Your task to perform on an android device: Clear the cart on ebay.com. Add bose quietcomfort 35 to the cart on ebay.com Image 0: 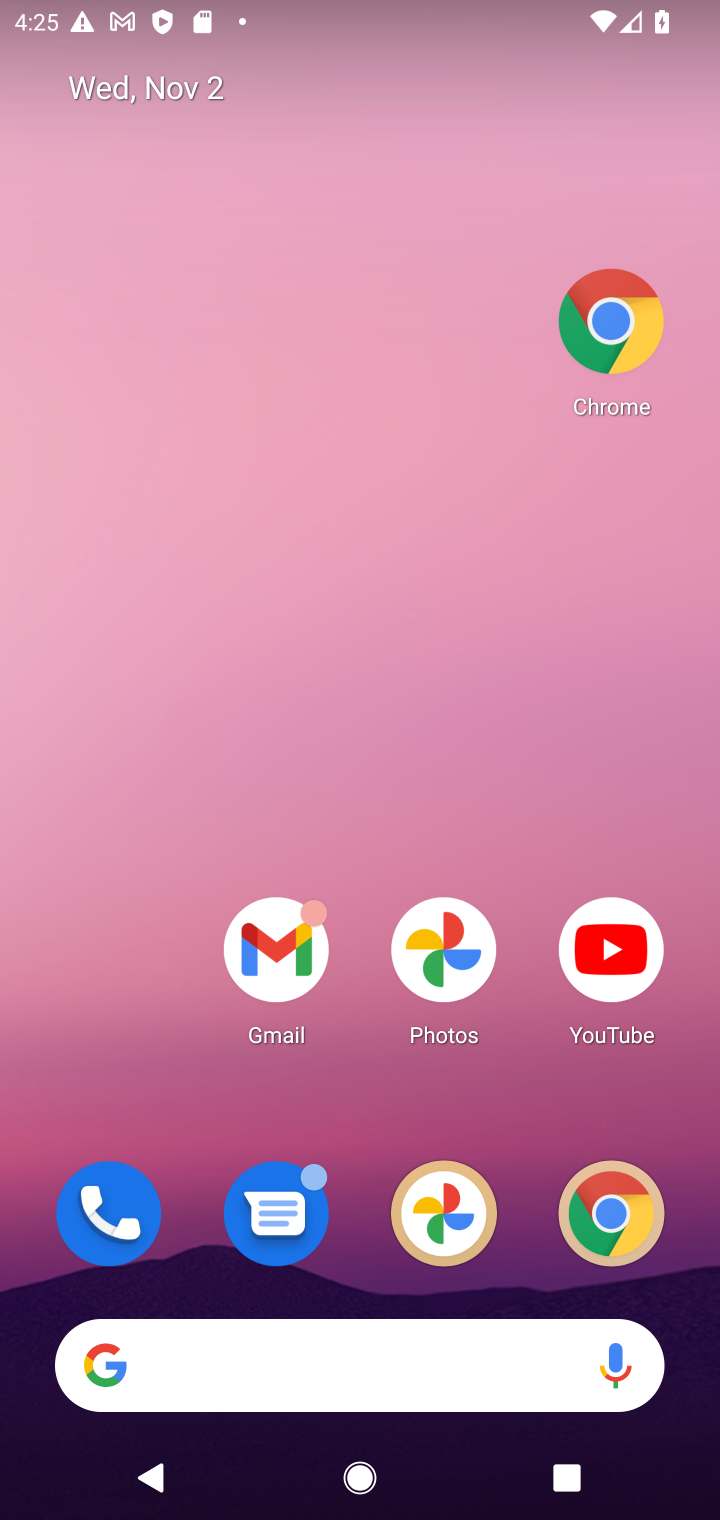
Step 0: press home button
Your task to perform on an android device: Clear the cart on ebay.com. Add bose quietcomfort 35 to the cart on ebay.com Image 1: 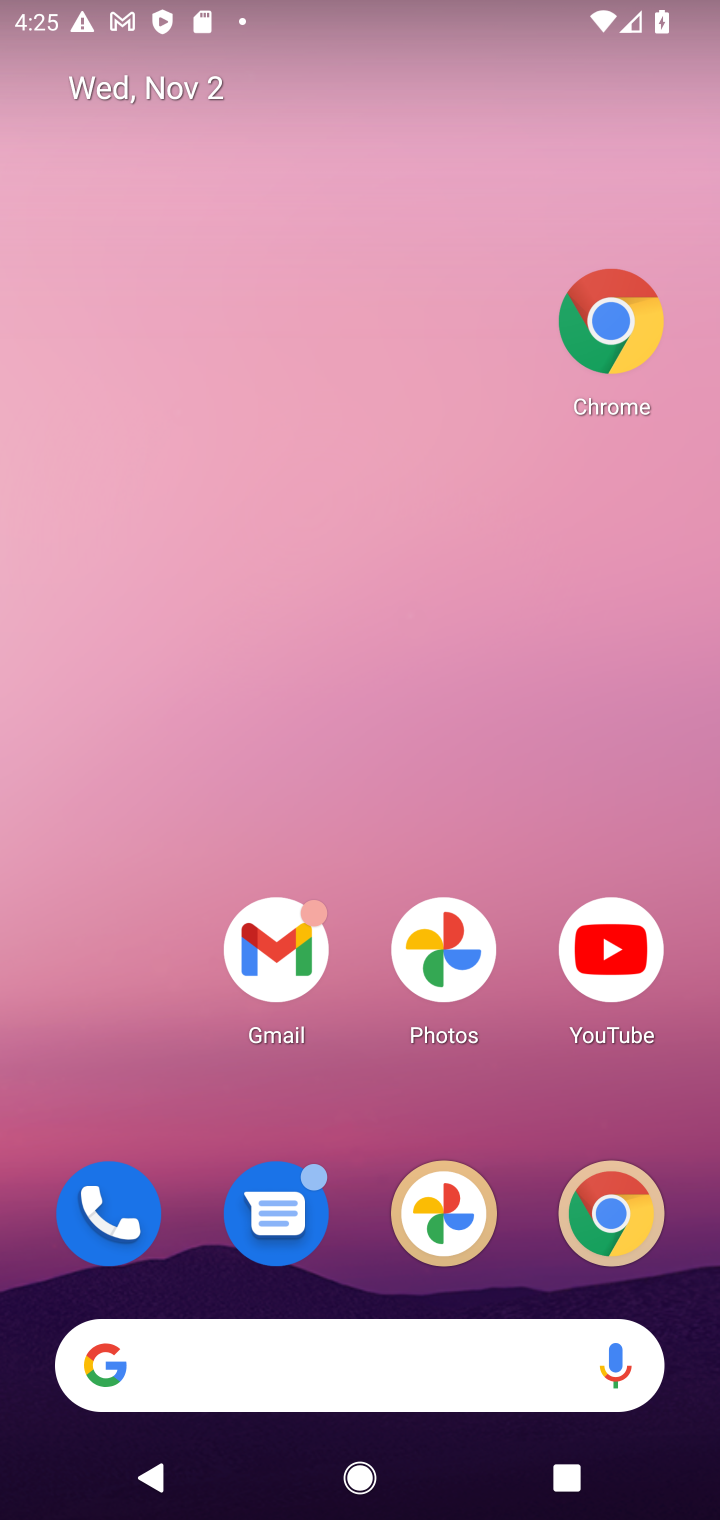
Step 1: drag from (357, 1170) to (433, 13)
Your task to perform on an android device: Clear the cart on ebay.com. Add bose quietcomfort 35 to the cart on ebay.com Image 2: 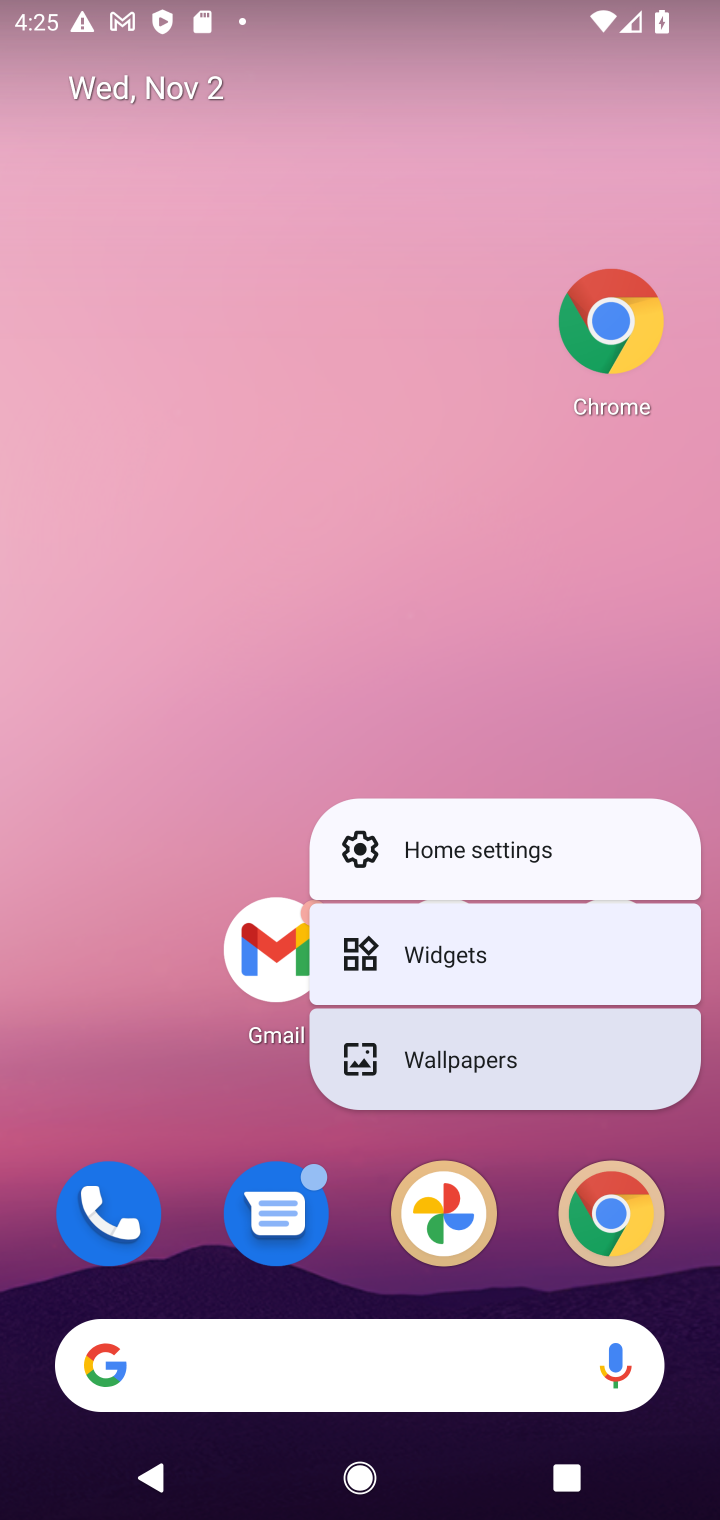
Step 2: click (133, 595)
Your task to perform on an android device: Clear the cart on ebay.com. Add bose quietcomfort 35 to the cart on ebay.com Image 3: 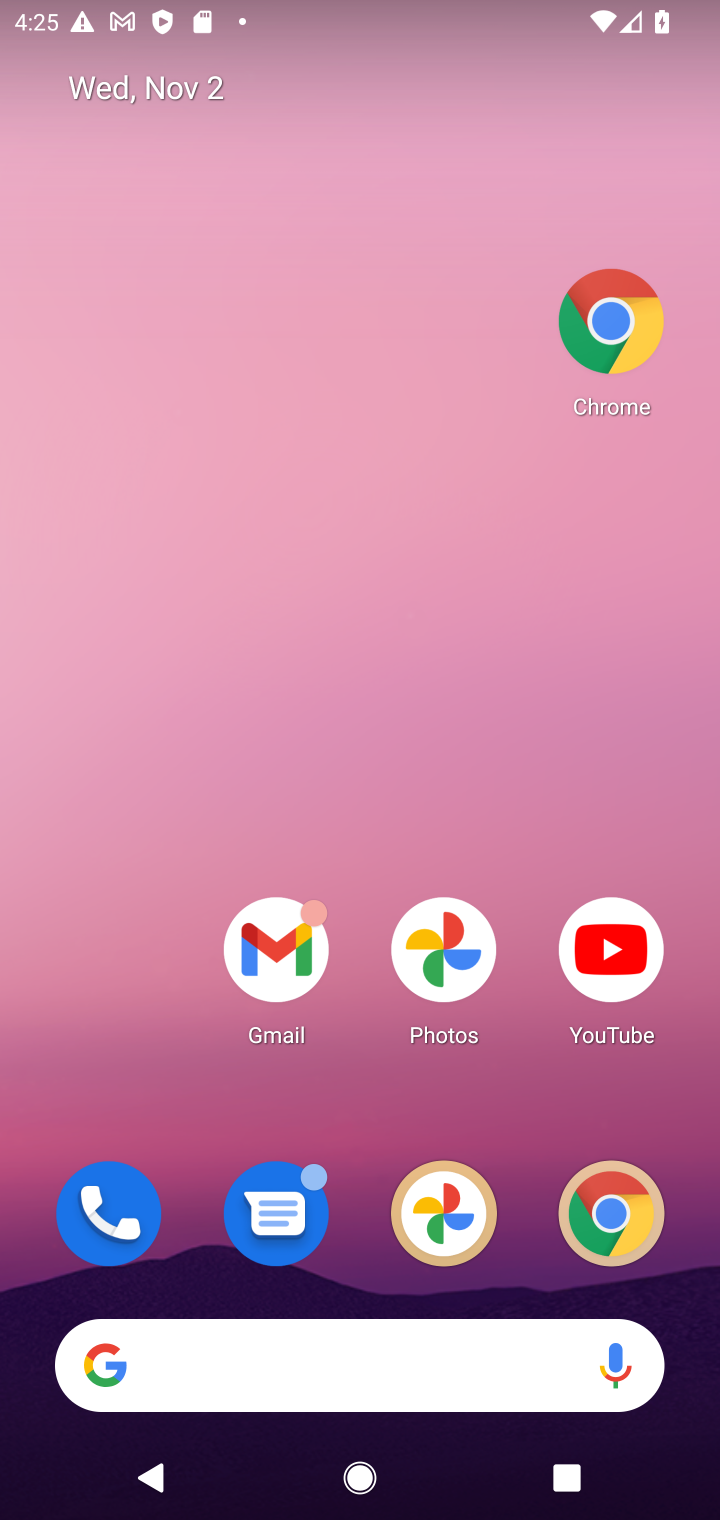
Step 3: drag from (392, 1218) to (441, 535)
Your task to perform on an android device: Clear the cart on ebay.com. Add bose quietcomfort 35 to the cart on ebay.com Image 4: 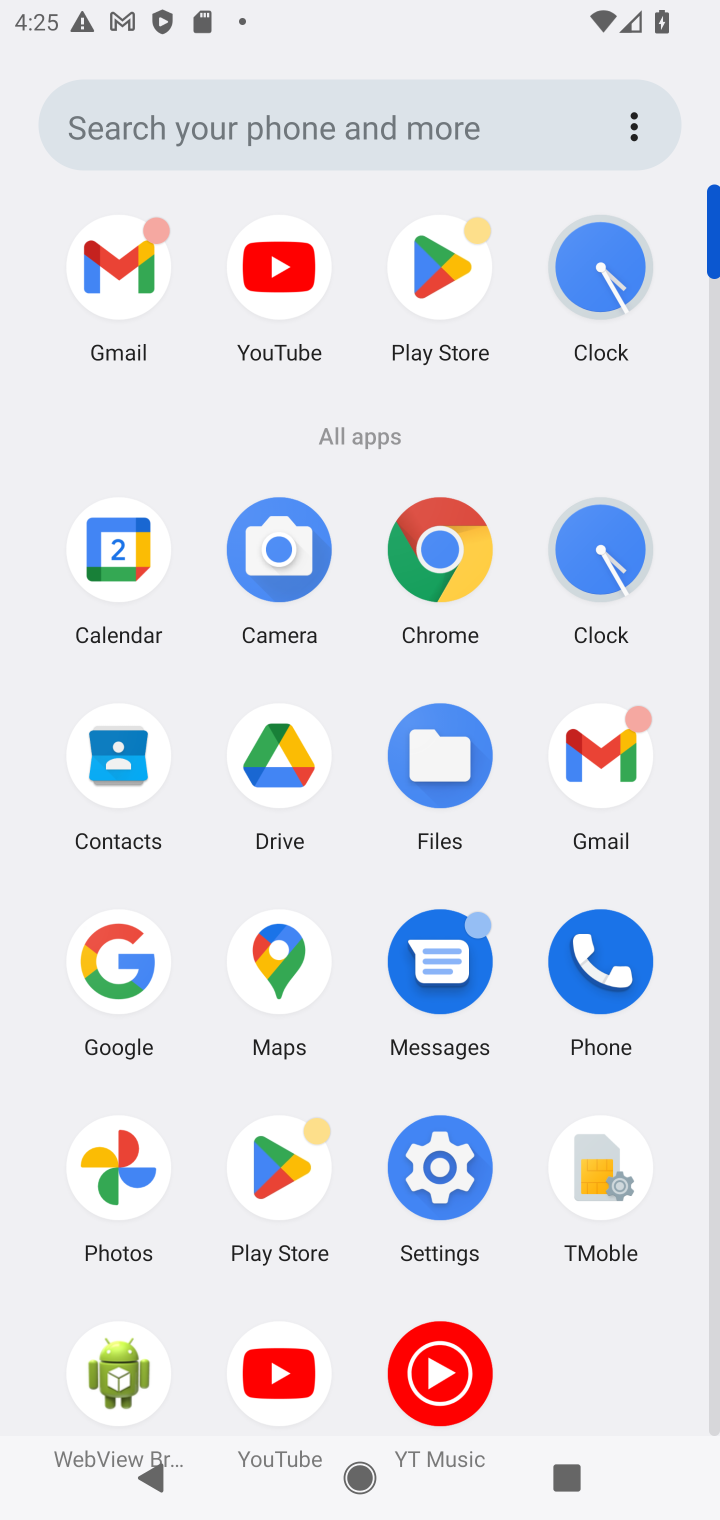
Step 4: click (130, 959)
Your task to perform on an android device: Clear the cart on ebay.com. Add bose quietcomfort 35 to the cart on ebay.com Image 5: 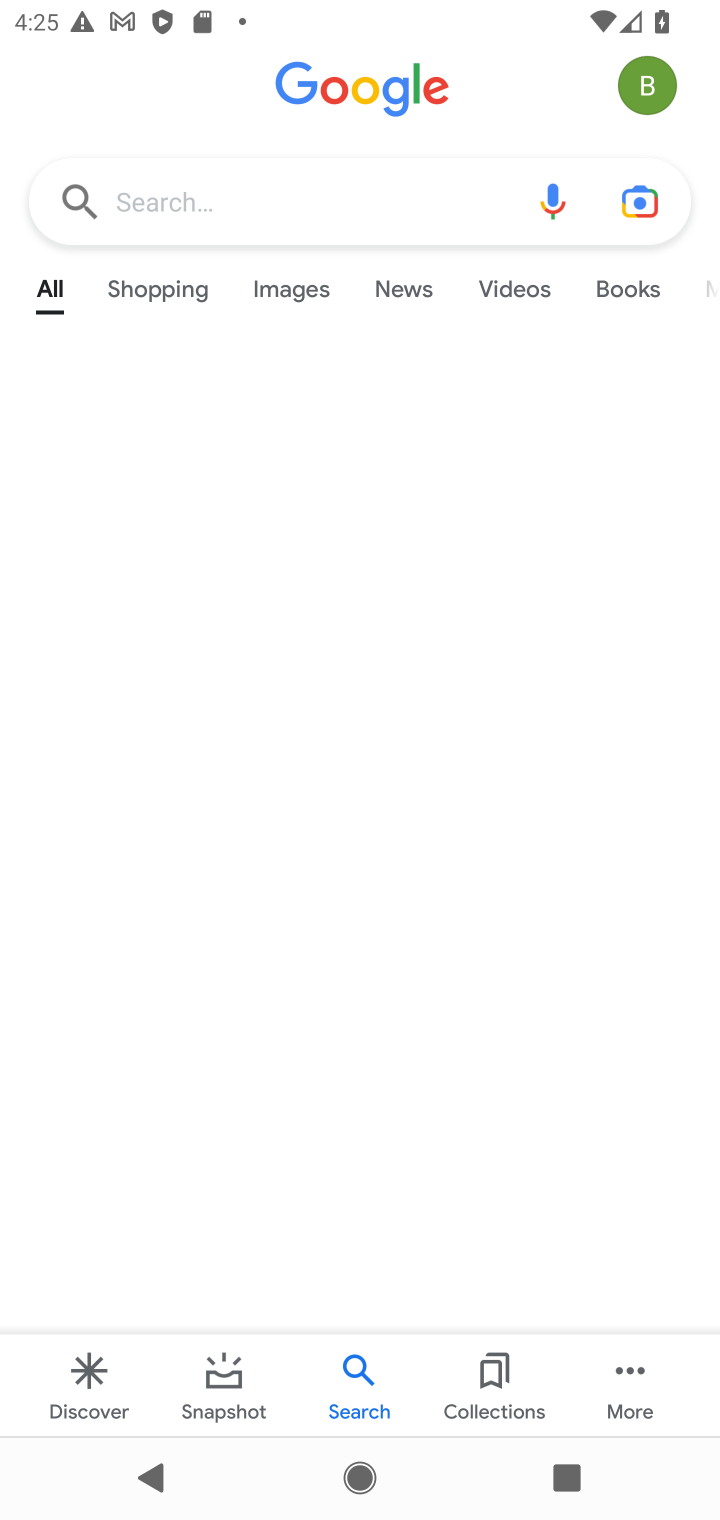
Step 5: click (411, 227)
Your task to perform on an android device: Clear the cart on ebay.com. Add bose quietcomfort 35 to the cart on ebay.com Image 6: 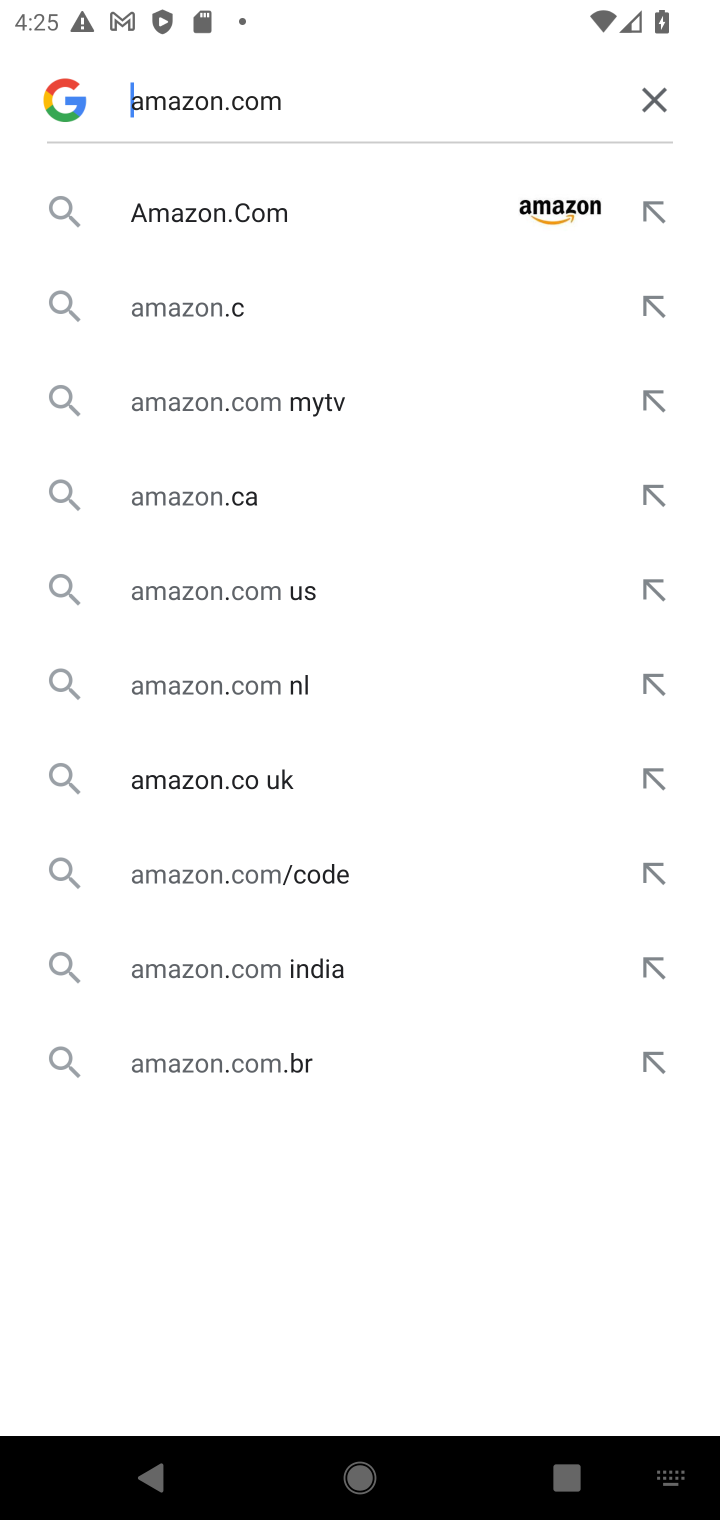
Step 6: click (638, 94)
Your task to perform on an android device: Clear the cart on ebay.com. Add bose quietcomfort 35 to the cart on ebay.com Image 7: 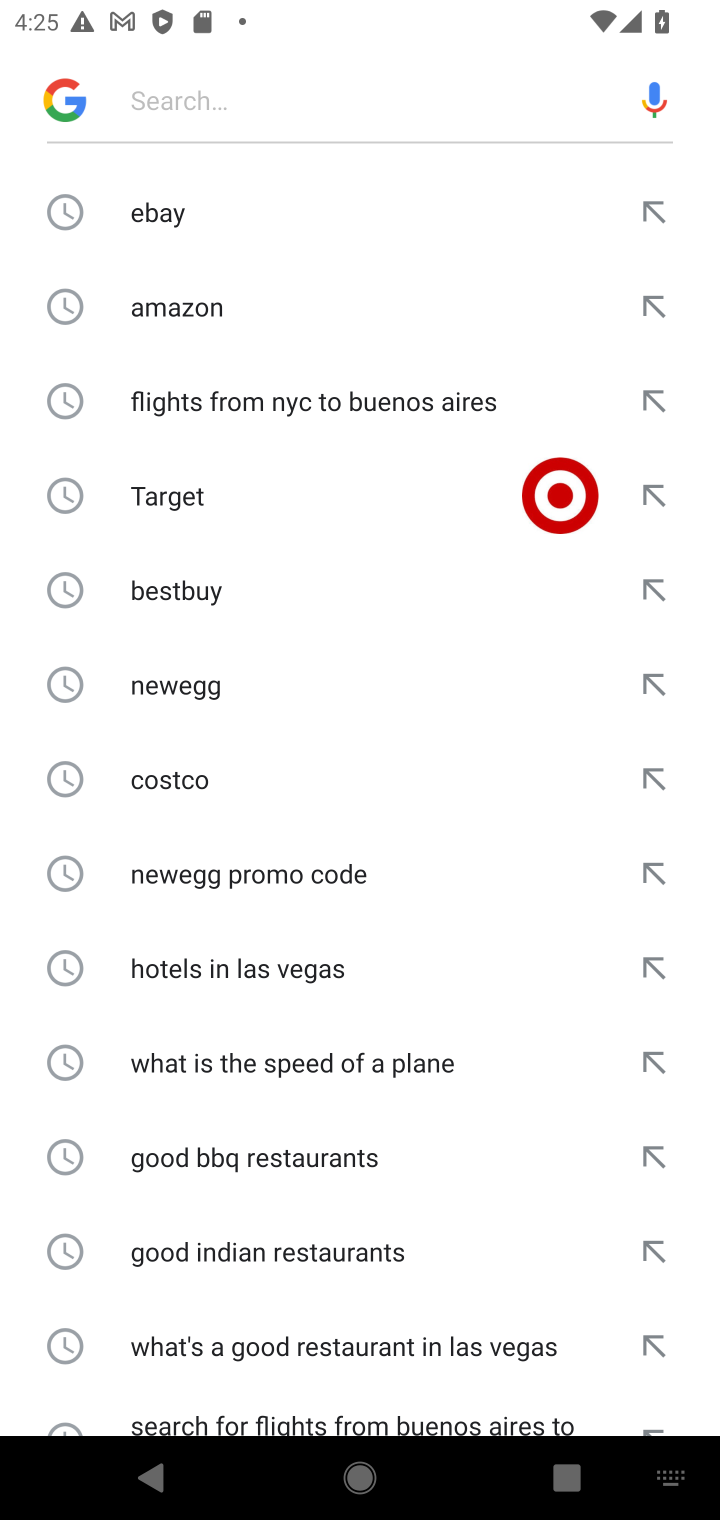
Step 7: type "ebay.com"
Your task to perform on an android device: Clear the cart on ebay.com. Add bose quietcomfort 35 to the cart on ebay.com Image 8: 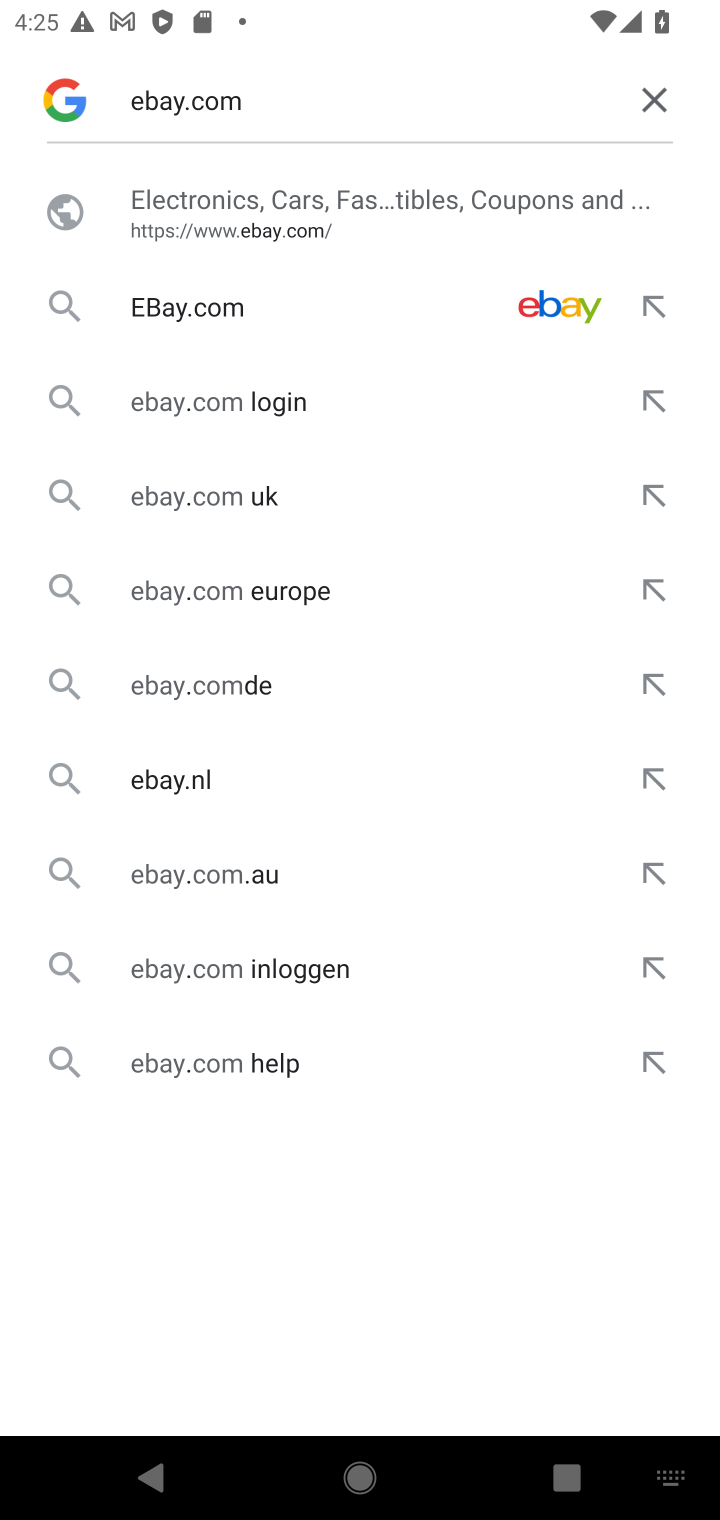
Step 8: click (256, 208)
Your task to perform on an android device: Clear the cart on ebay.com. Add bose quietcomfort 35 to the cart on ebay.com Image 9: 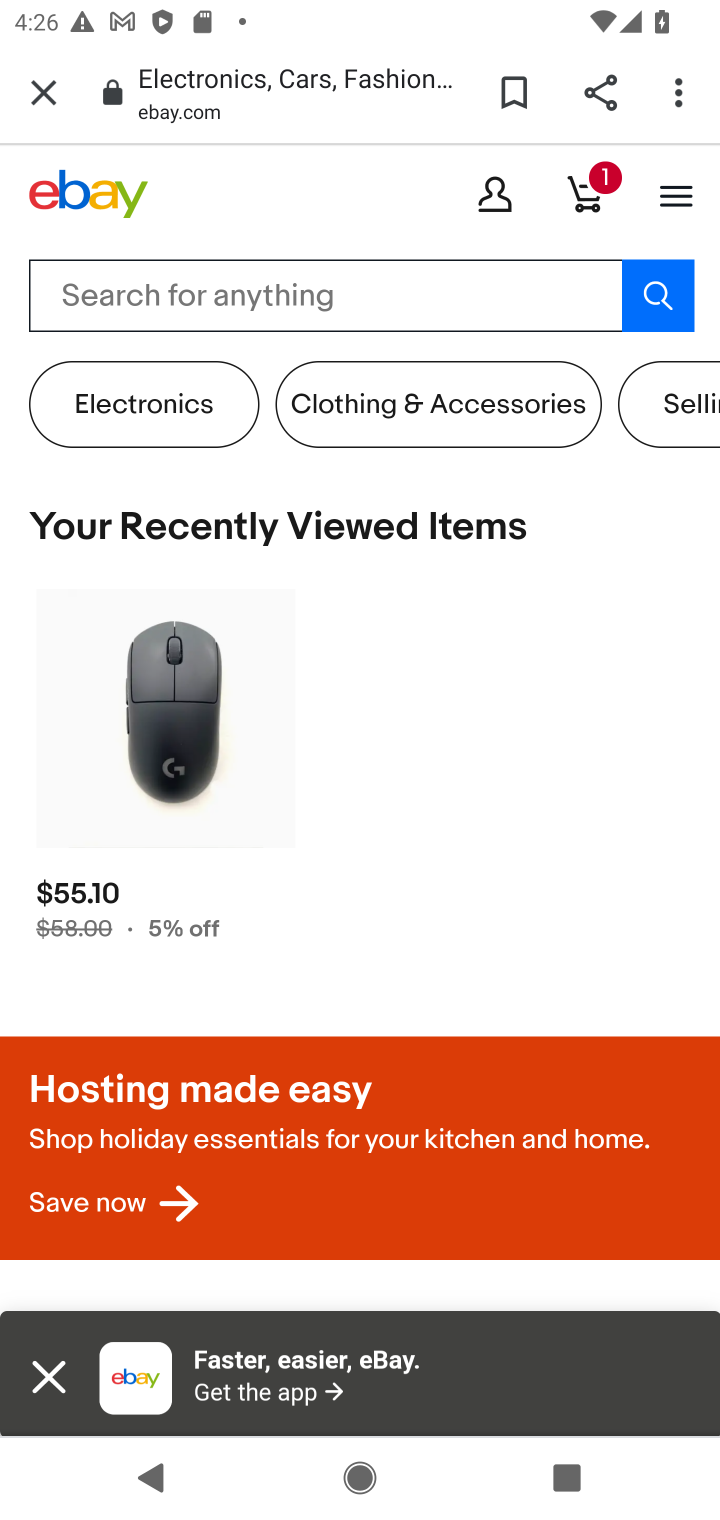
Step 9: click (190, 263)
Your task to perform on an android device: Clear the cart on ebay.com. Add bose quietcomfort 35 to the cart on ebay.com Image 10: 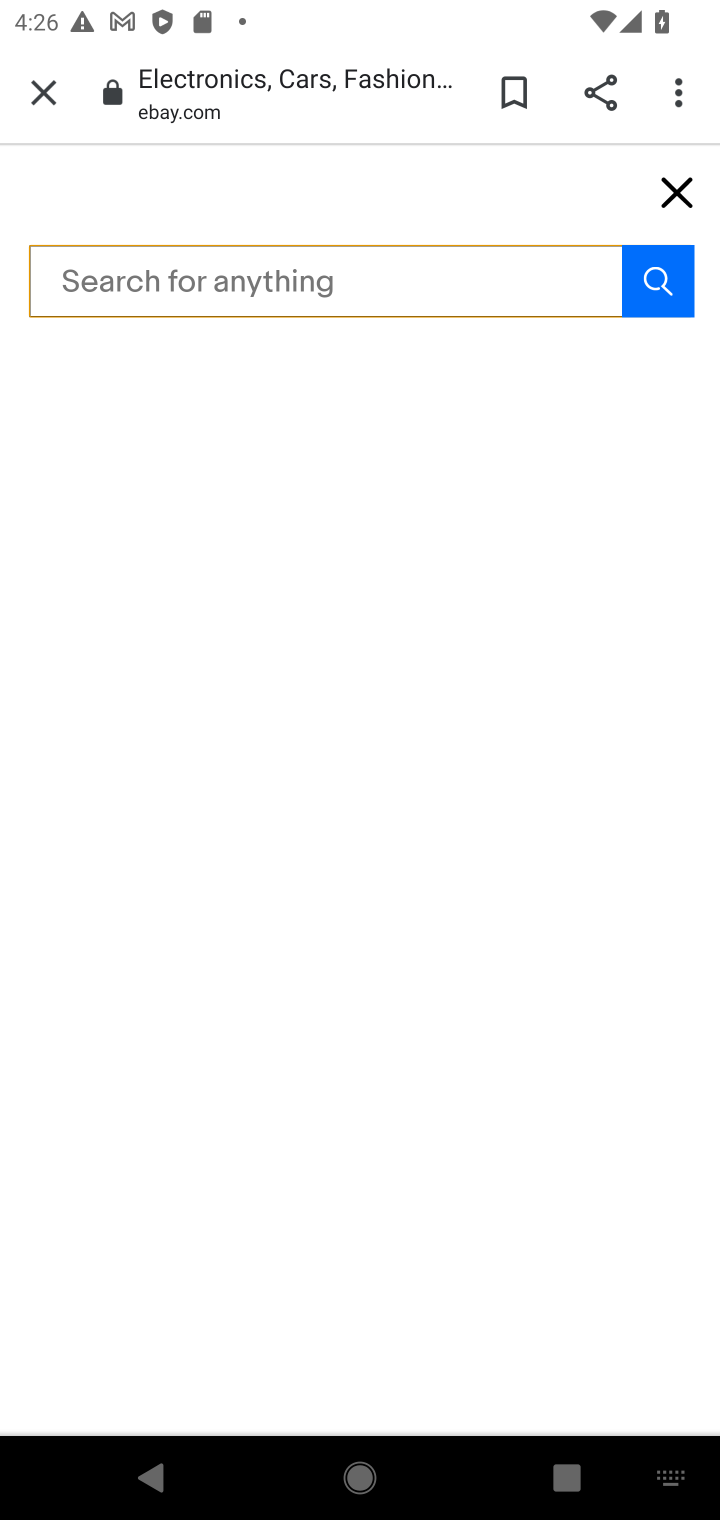
Step 10: type "bose quietcomfort 35"
Your task to perform on an android device: Clear the cart on ebay.com. Add bose quietcomfort 35 to the cart on ebay.com Image 11: 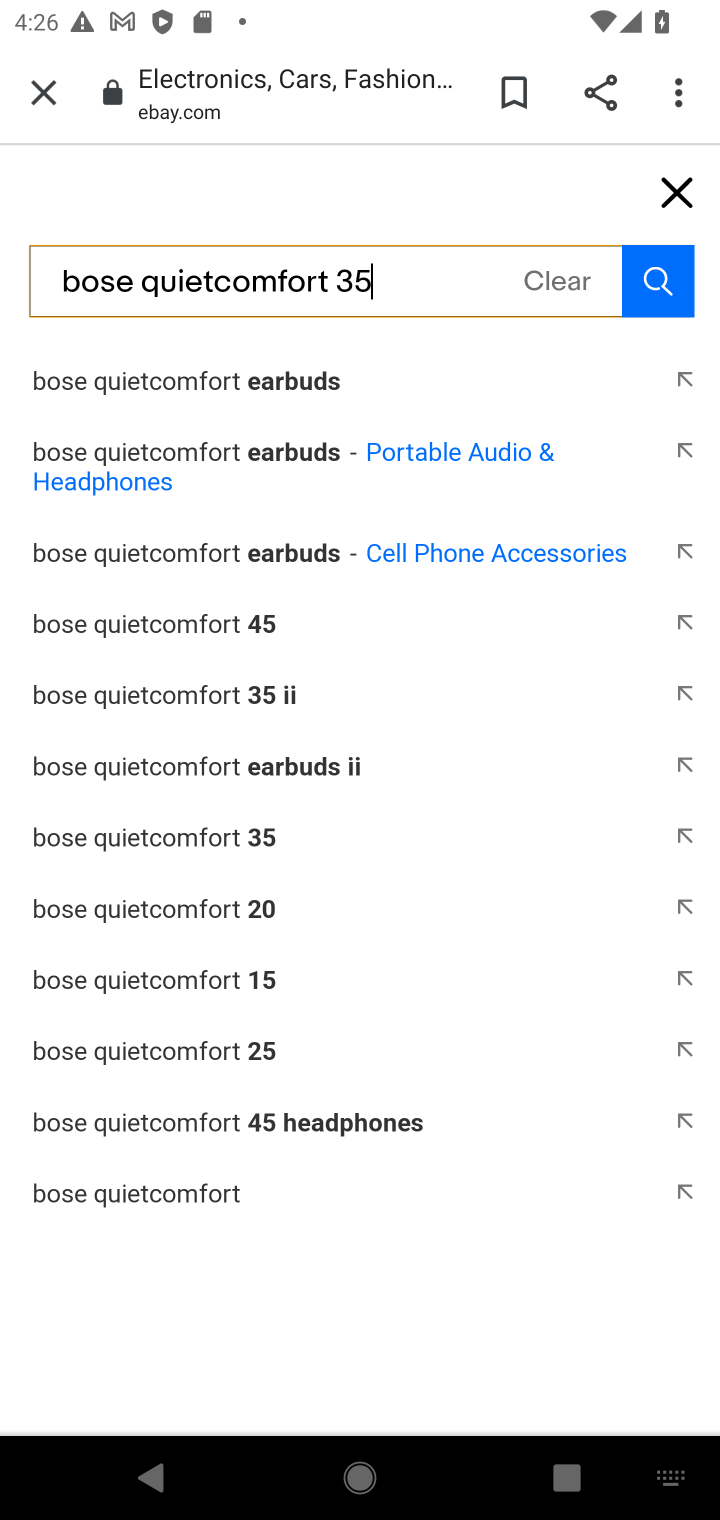
Step 11: click (169, 834)
Your task to perform on an android device: Clear the cart on ebay.com. Add bose quietcomfort 35 to the cart on ebay.com Image 12: 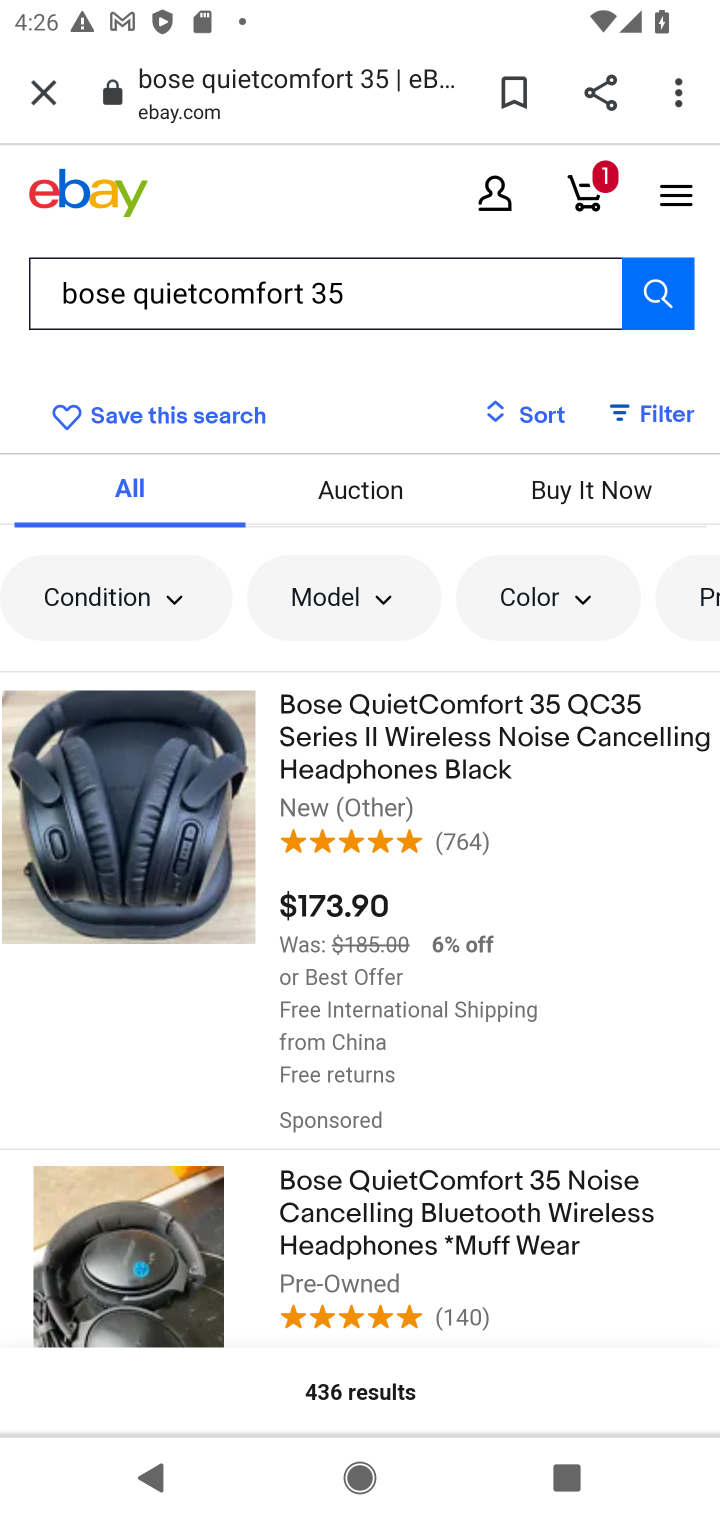
Step 12: click (423, 748)
Your task to perform on an android device: Clear the cart on ebay.com. Add bose quietcomfort 35 to the cart on ebay.com Image 13: 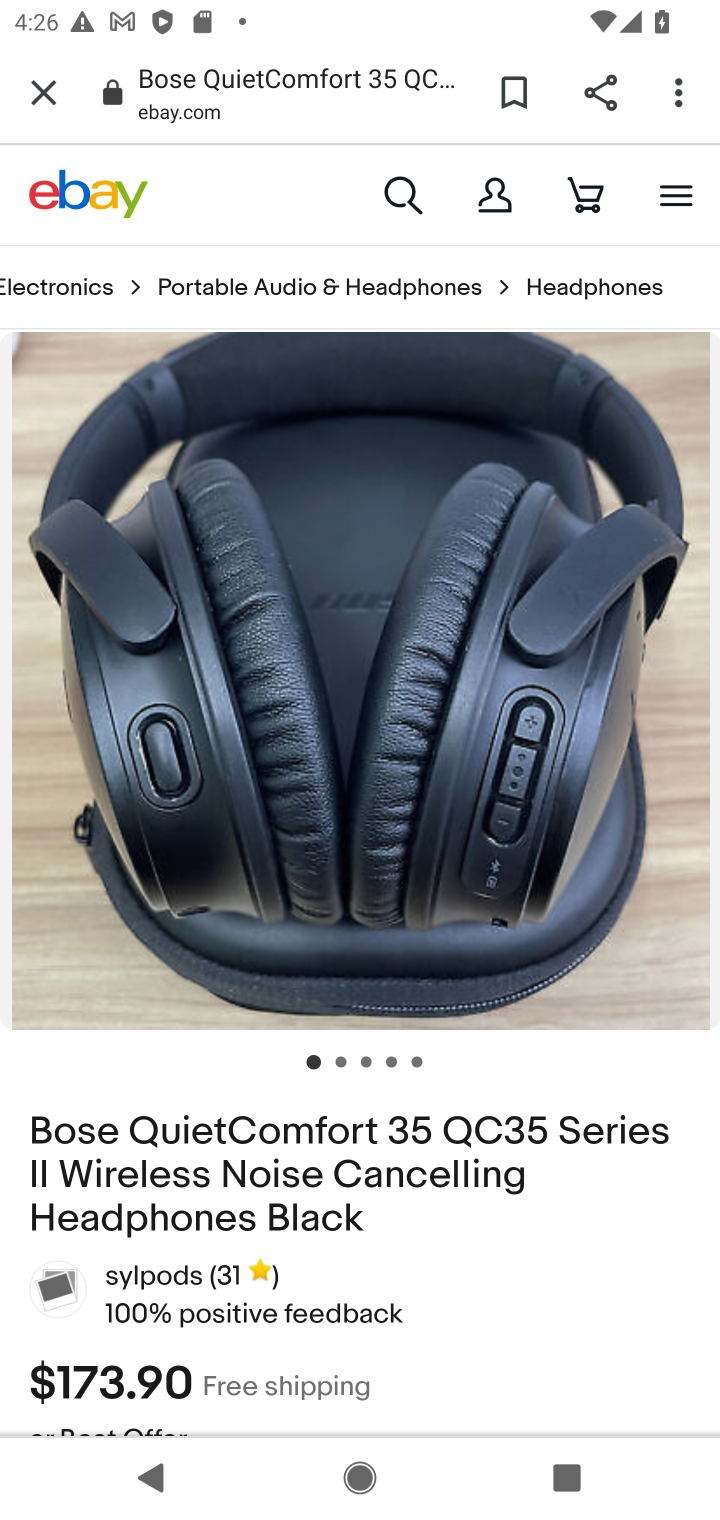
Step 13: drag from (428, 1031) to (548, 562)
Your task to perform on an android device: Clear the cart on ebay.com. Add bose quietcomfort 35 to the cart on ebay.com Image 14: 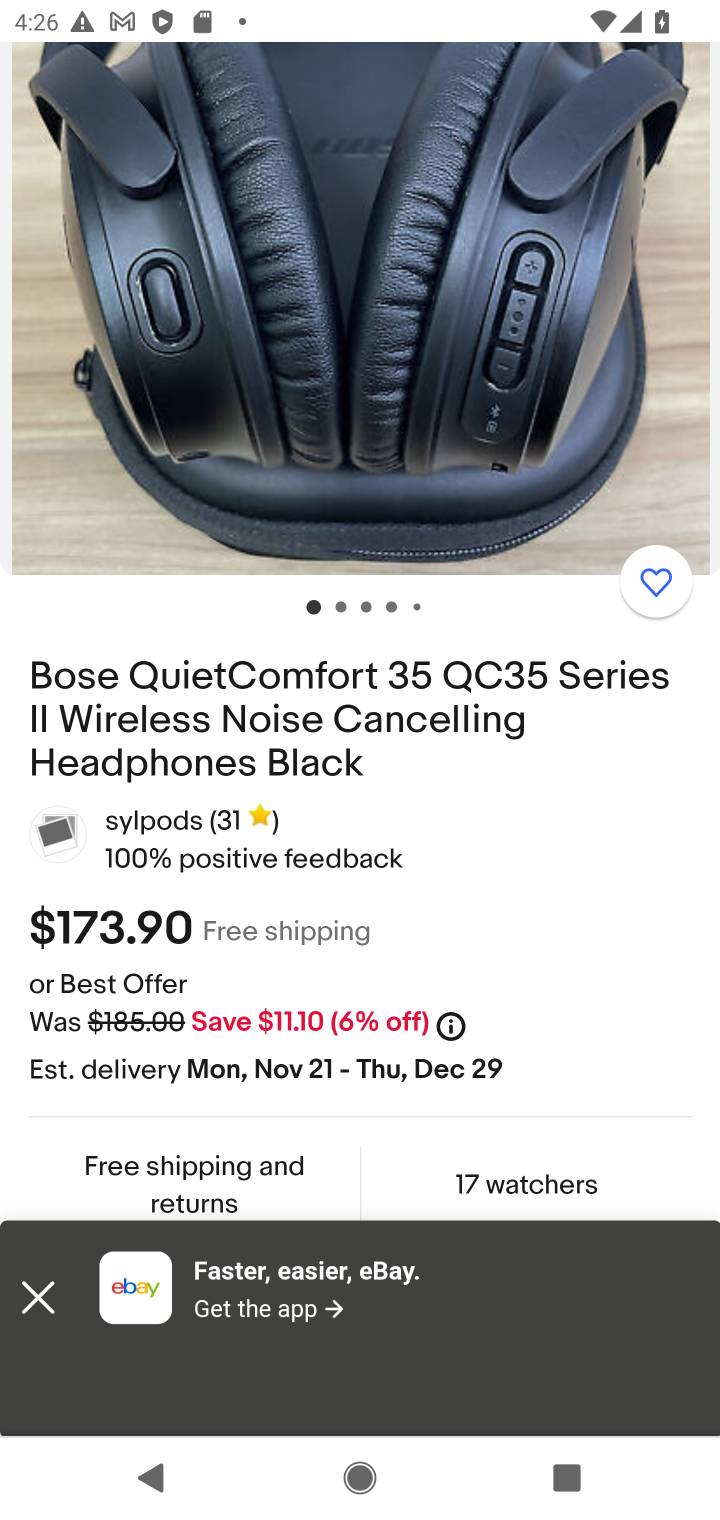
Step 14: drag from (483, 1158) to (556, 752)
Your task to perform on an android device: Clear the cart on ebay.com. Add bose quietcomfort 35 to the cart on ebay.com Image 15: 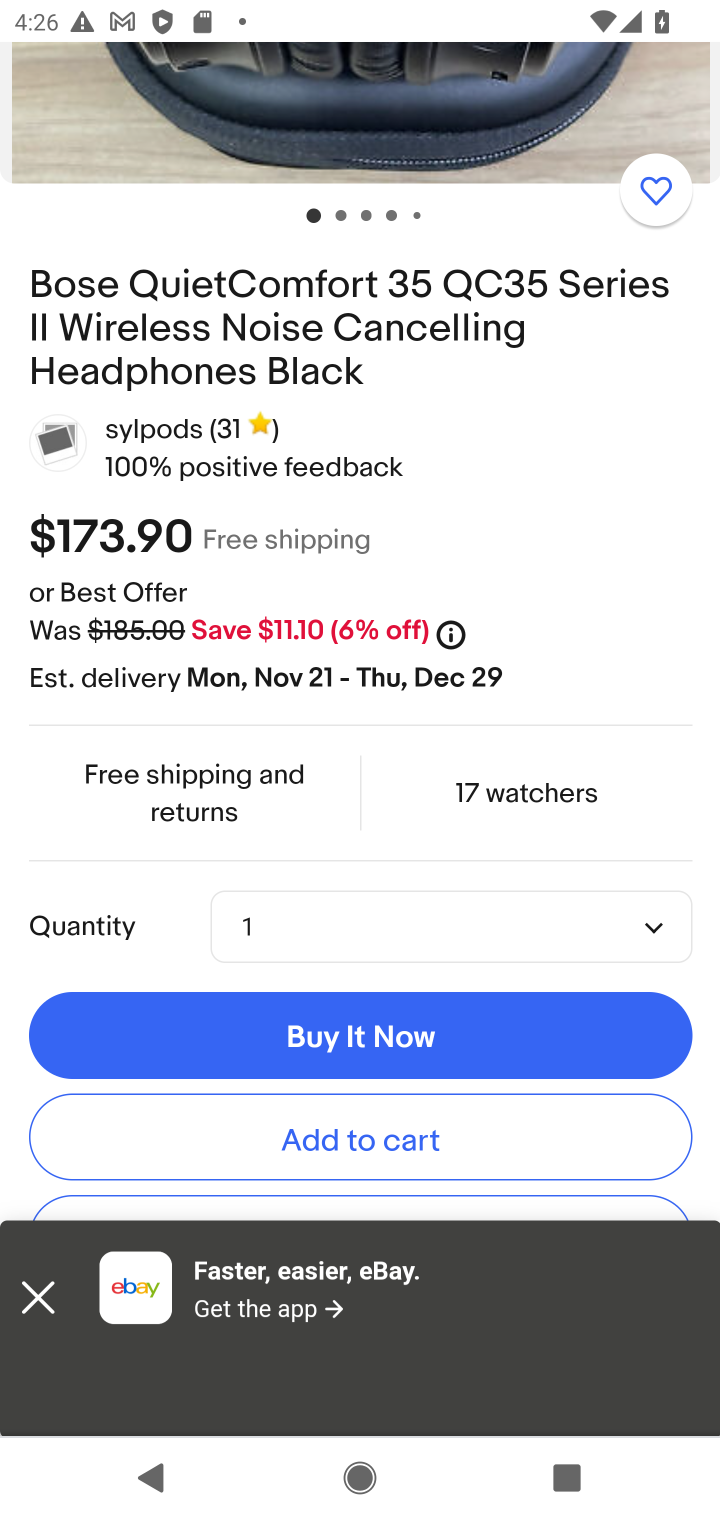
Step 15: click (410, 1156)
Your task to perform on an android device: Clear the cart on ebay.com. Add bose quietcomfort 35 to the cart on ebay.com Image 16: 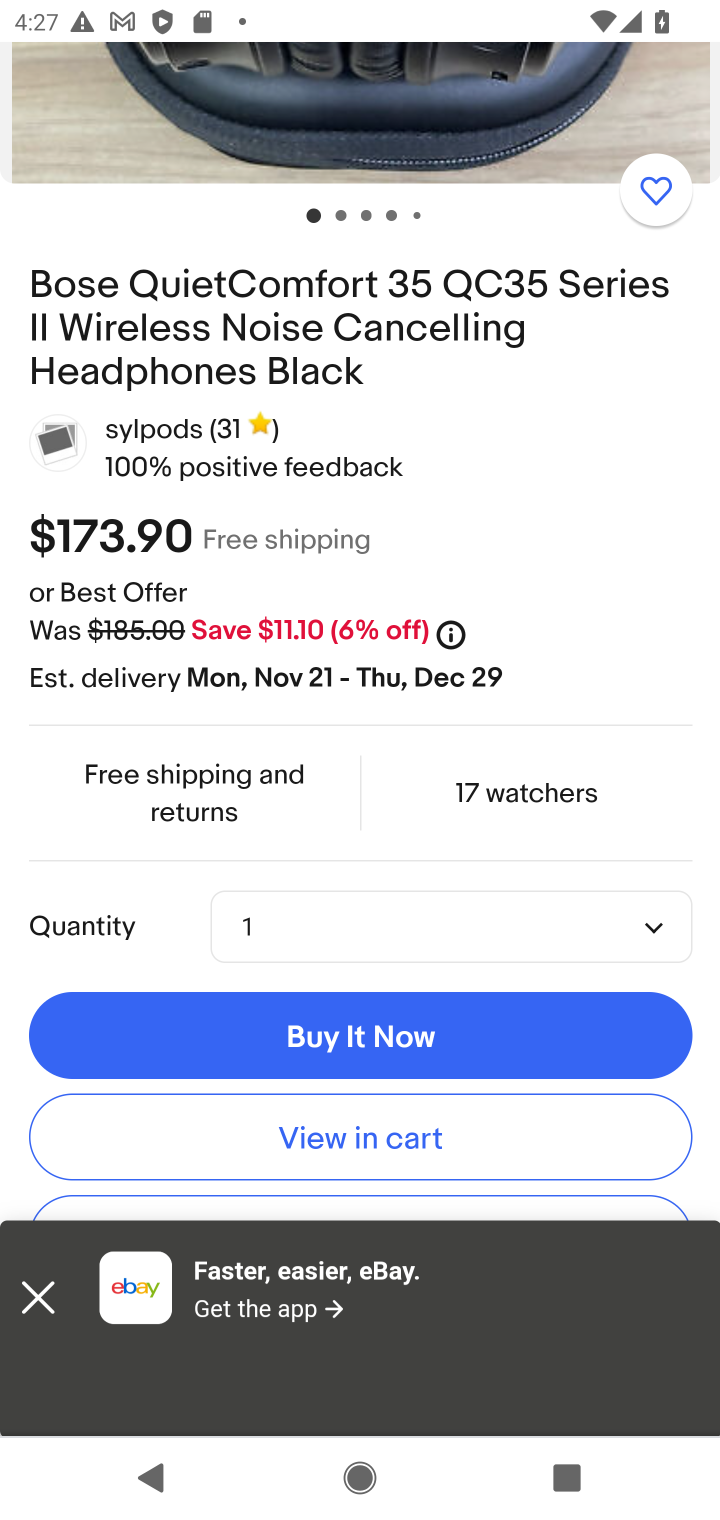
Step 16: task complete